Your task to perform on an android device: all mails in gmail Image 0: 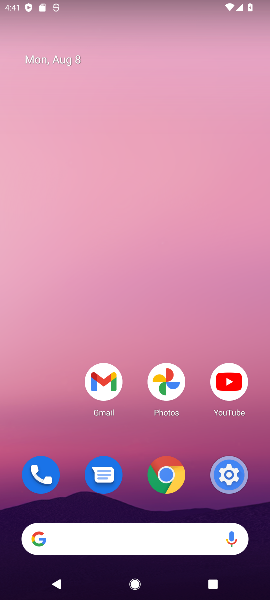
Step 0: press home button
Your task to perform on an android device: all mails in gmail Image 1: 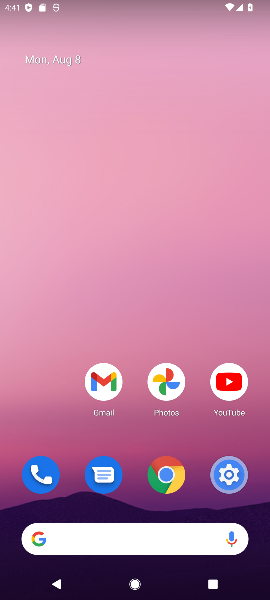
Step 1: drag from (63, 437) to (67, 213)
Your task to perform on an android device: all mails in gmail Image 2: 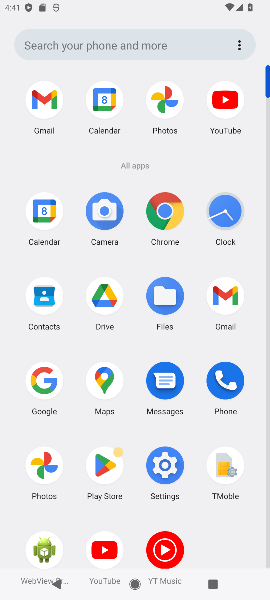
Step 2: click (222, 299)
Your task to perform on an android device: all mails in gmail Image 3: 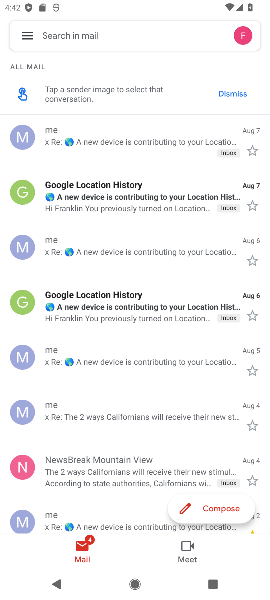
Step 3: click (27, 38)
Your task to perform on an android device: all mails in gmail Image 4: 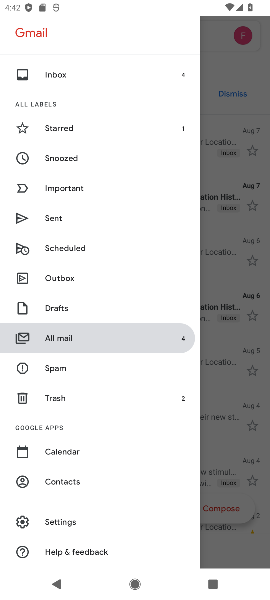
Step 4: click (122, 341)
Your task to perform on an android device: all mails in gmail Image 5: 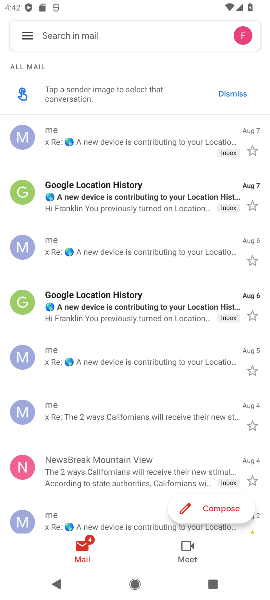
Step 5: task complete